Your task to perform on an android device: Open calendar and show me the third week of next month Image 0: 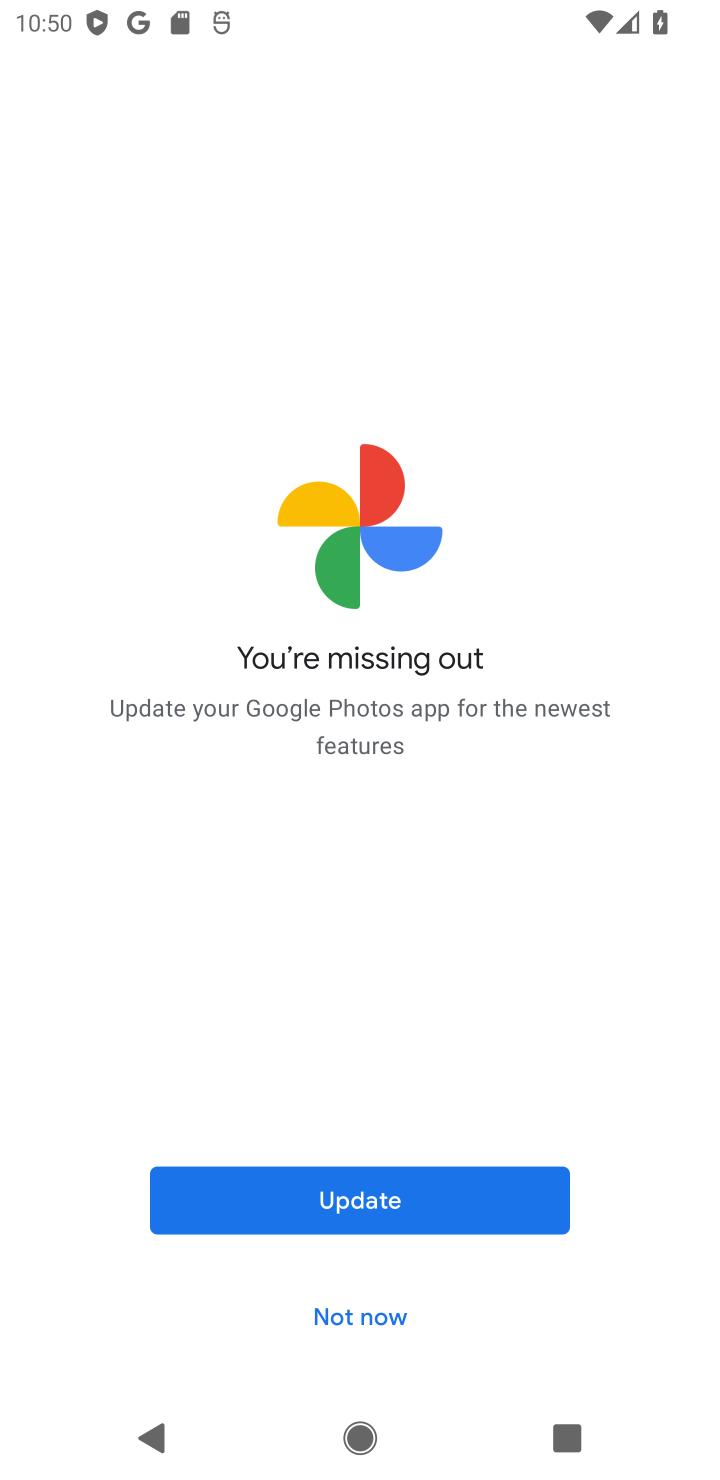
Step 0: press home button
Your task to perform on an android device: Open calendar and show me the third week of next month Image 1: 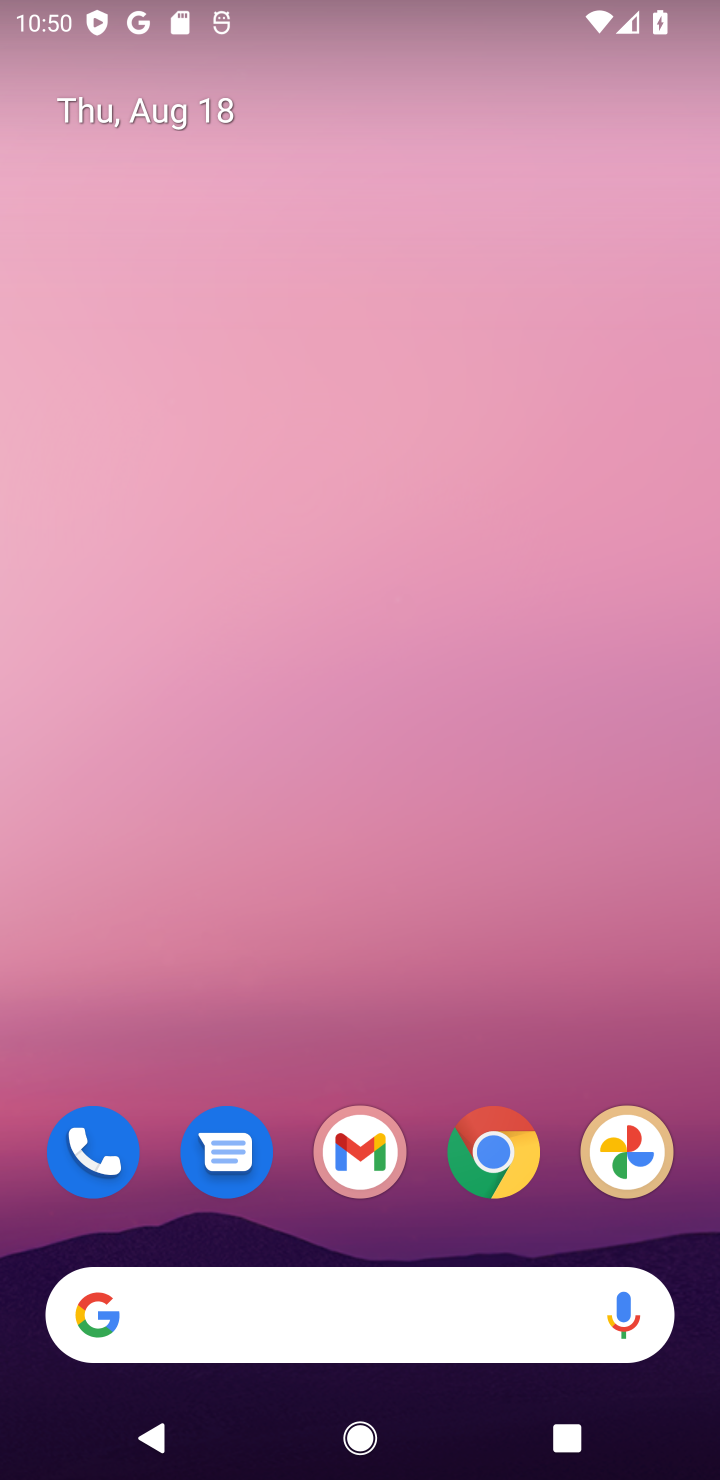
Step 1: drag from (371, 1021) to (499, 28)
Your task to perform on an android device: Open calendar and show me the third week of next month Image 2: 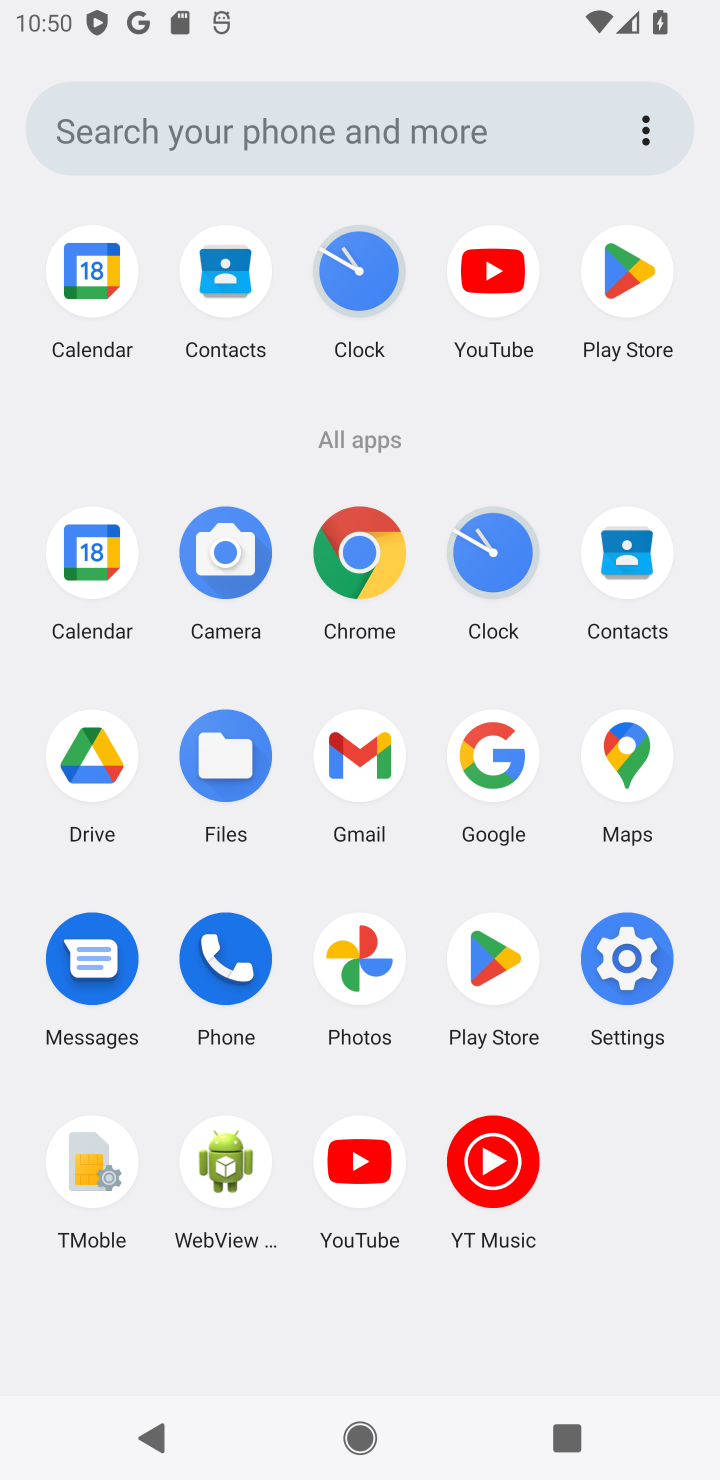
Step 2: click (92, 261)
Your task to perform on an android device: Open calendar and show me the third week of next month Image 3: 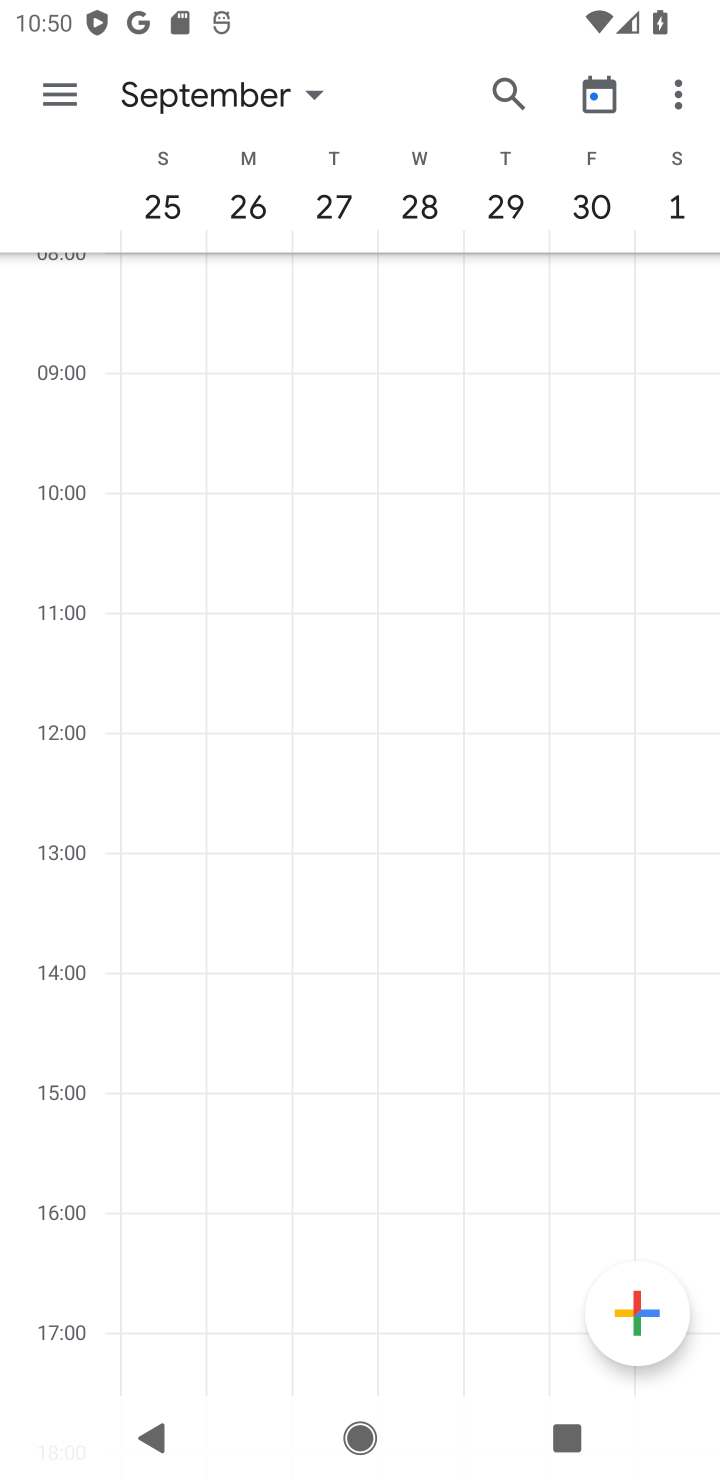
Step 3: click (76, 87)
Your task to perform on an android device: Open calendar and show me the third week of next month Image 4: 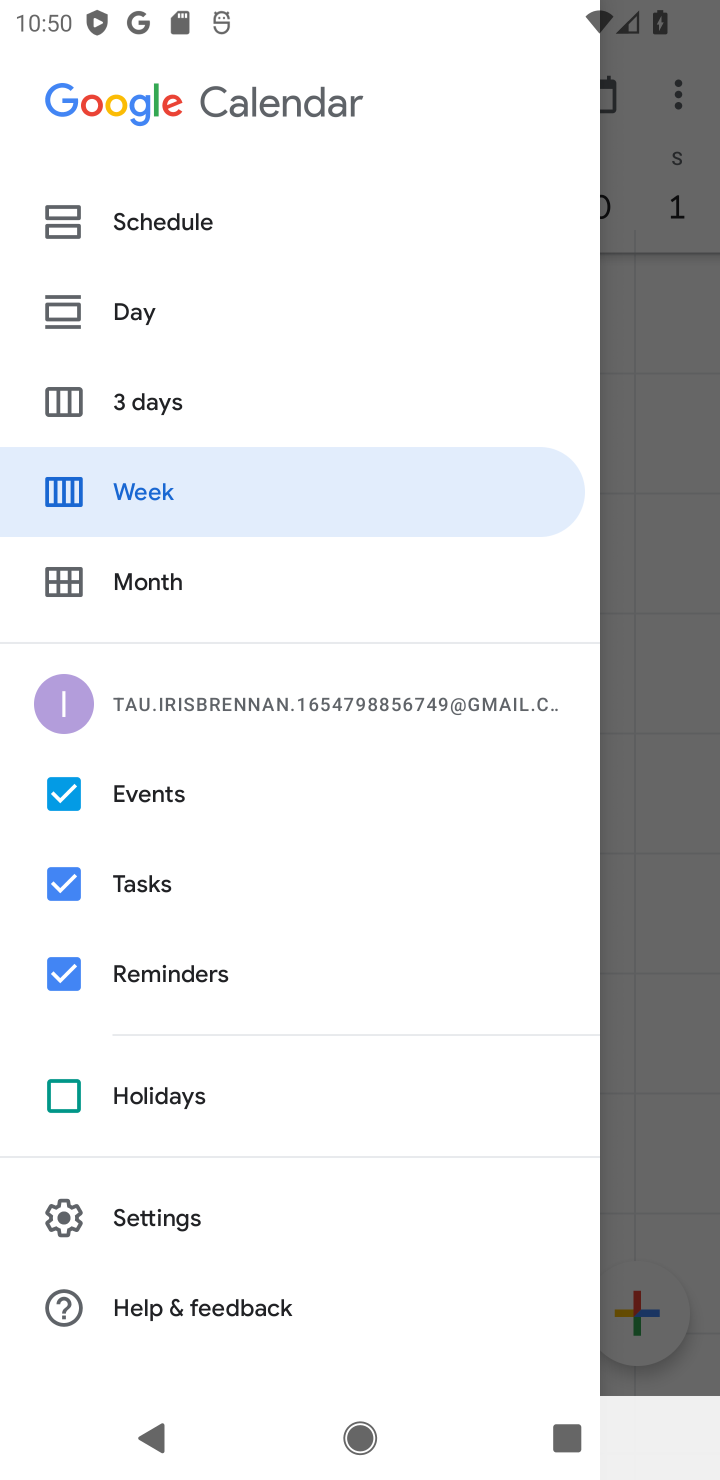
Step 4: click (136, 549)
Your task to perform on an android device: Open calendar and show me the third week of next month Image 5: 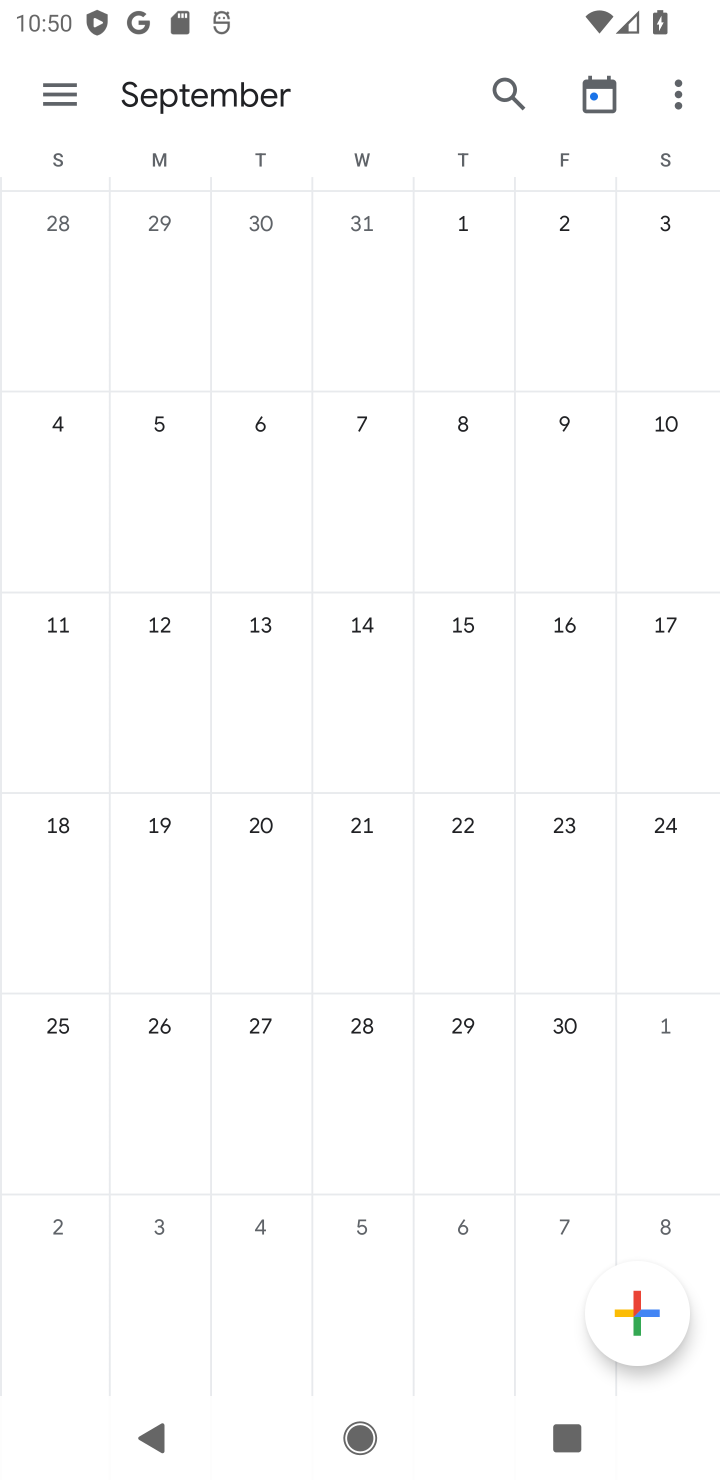
Step 5: click (62, 826)
Your task to perform on an android device: Open calendar and show me the third week of next month Image 6: 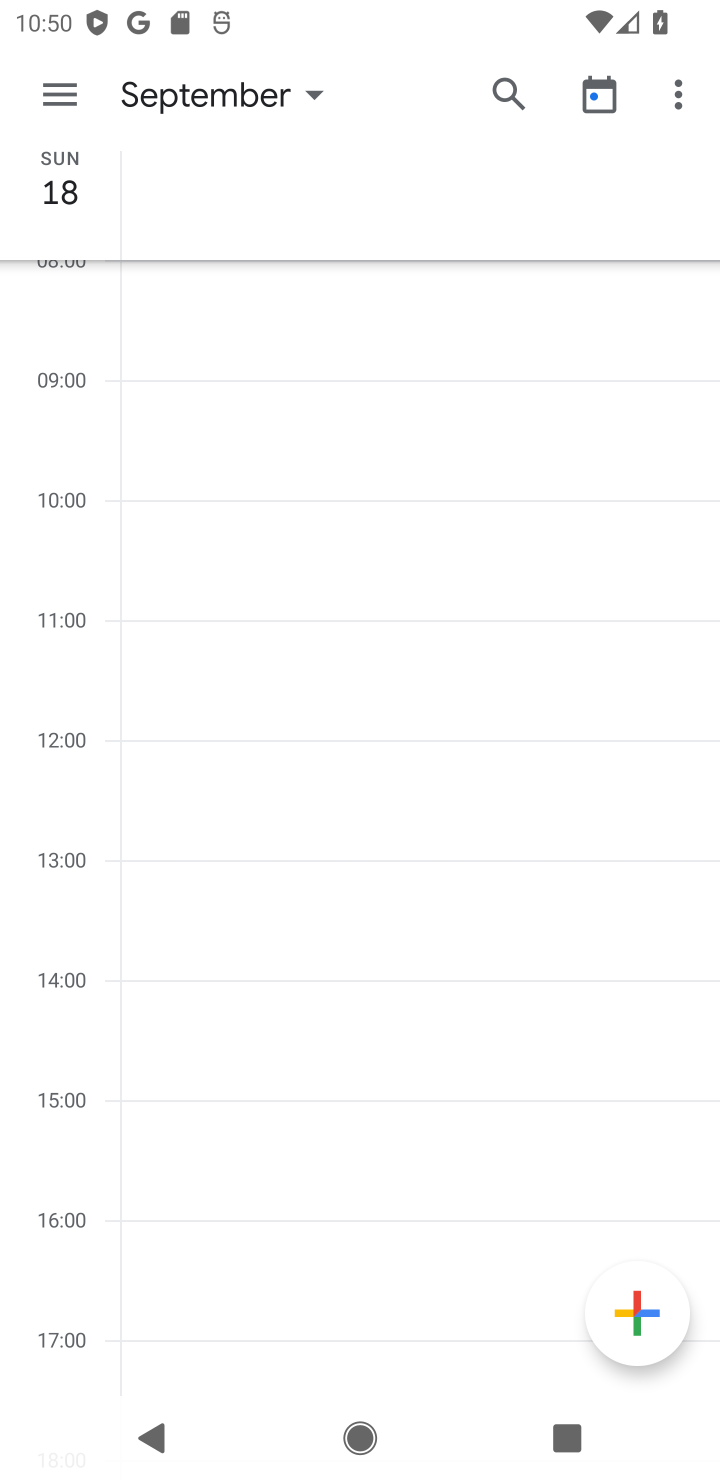
Step 6: click (59, 83)
Your task to perform on an android device: Open calendar and show me the third week of next month Image 7: 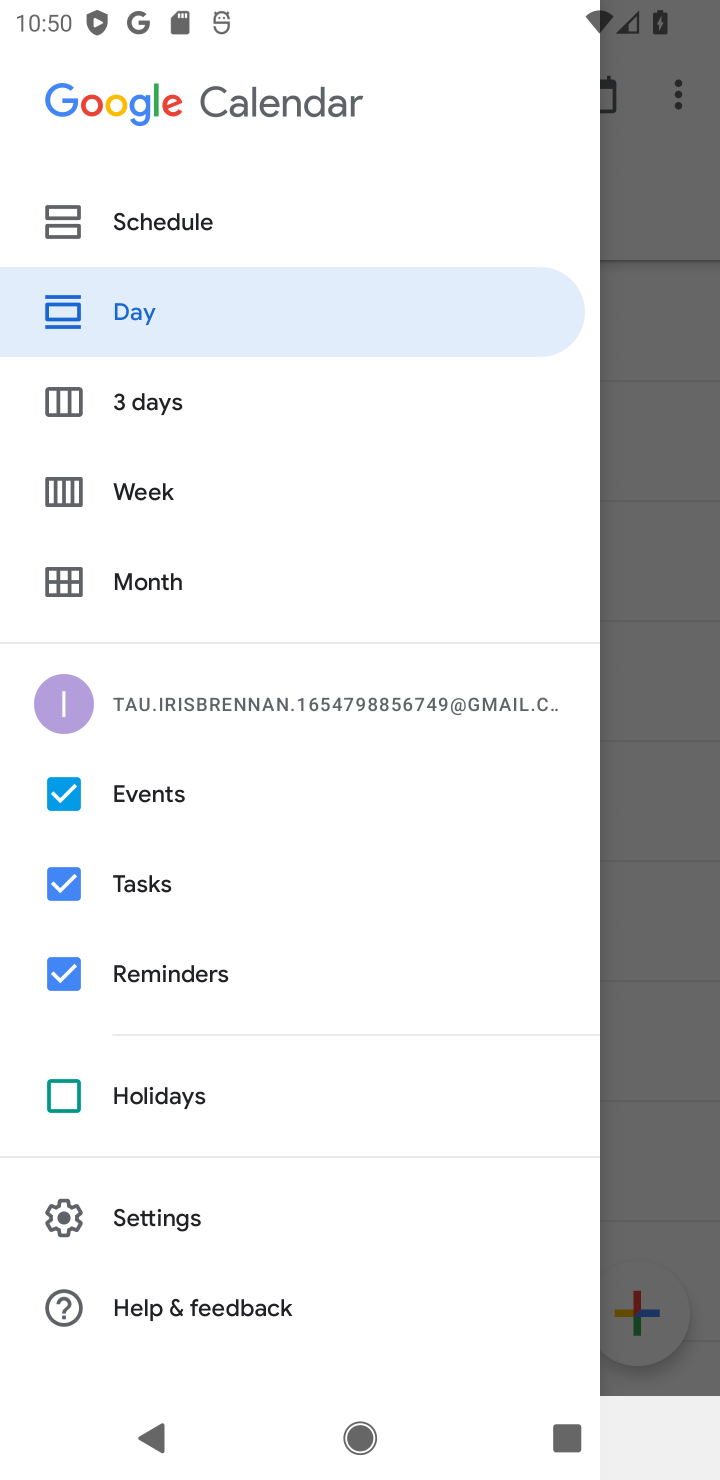
Step 7: click (59, 478)
Your task to perform on an android device: Open calendar and show me the third week of next month Image 8: 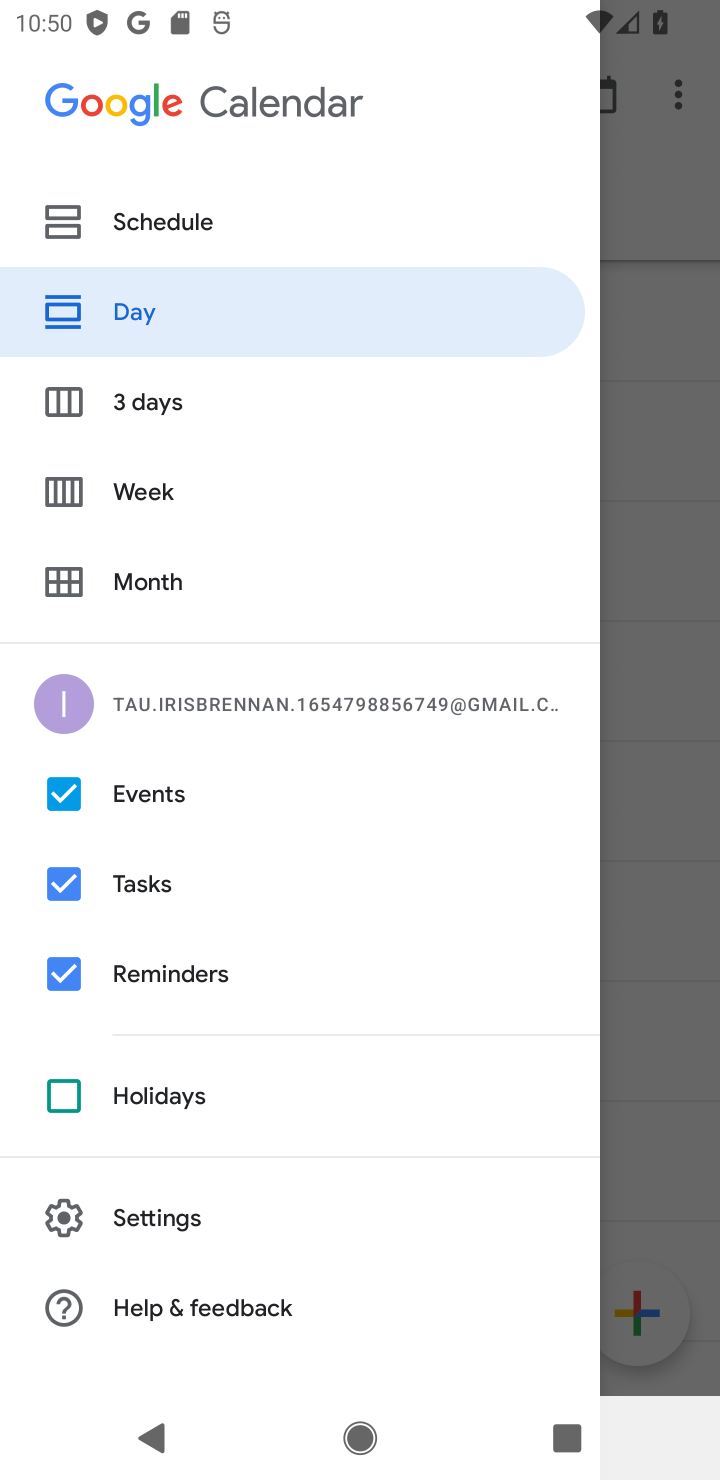
Step 8: click (59, 478)
Your task to perform on an android device: Open calendar and show me the third week of next month Image 9: 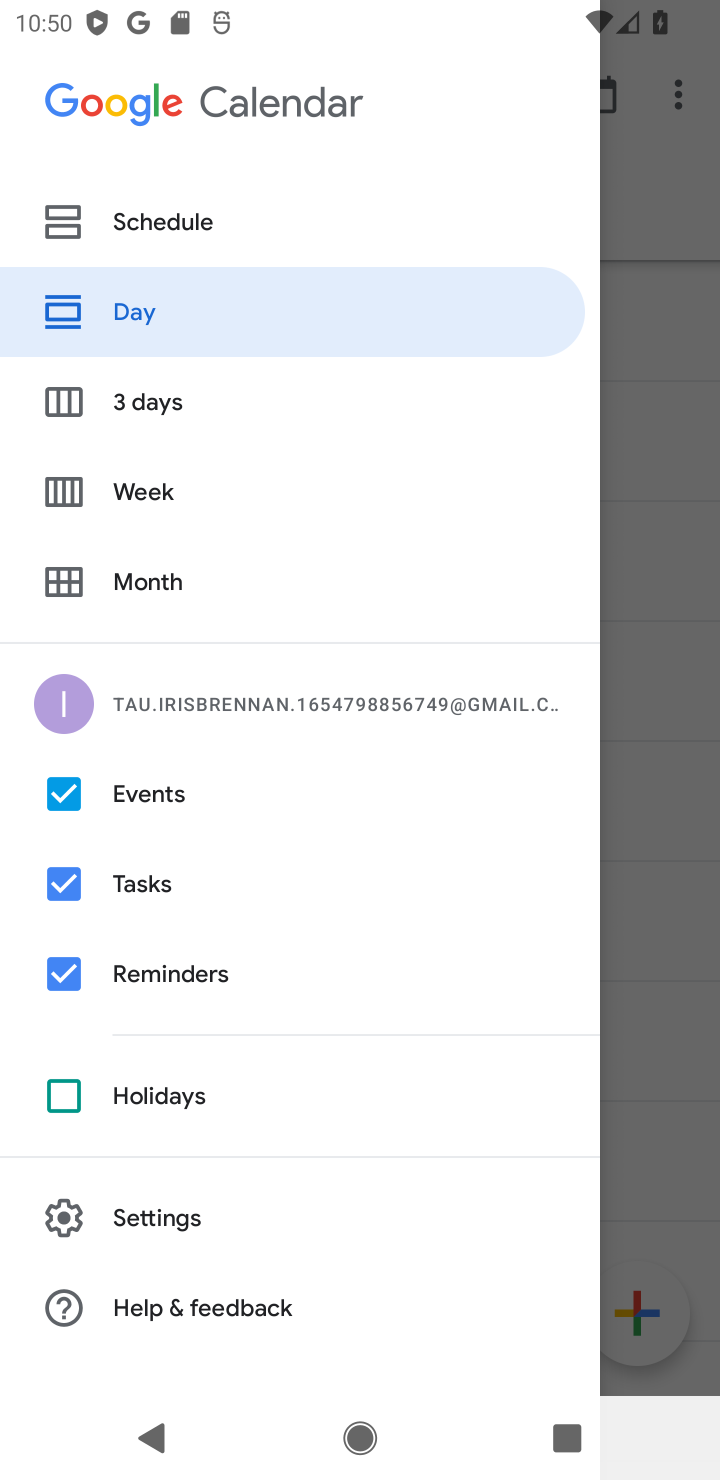
Step 9: click (59, 478)
Your task to perform on an android device: Open calendar and show me the third week of next month Image 10: 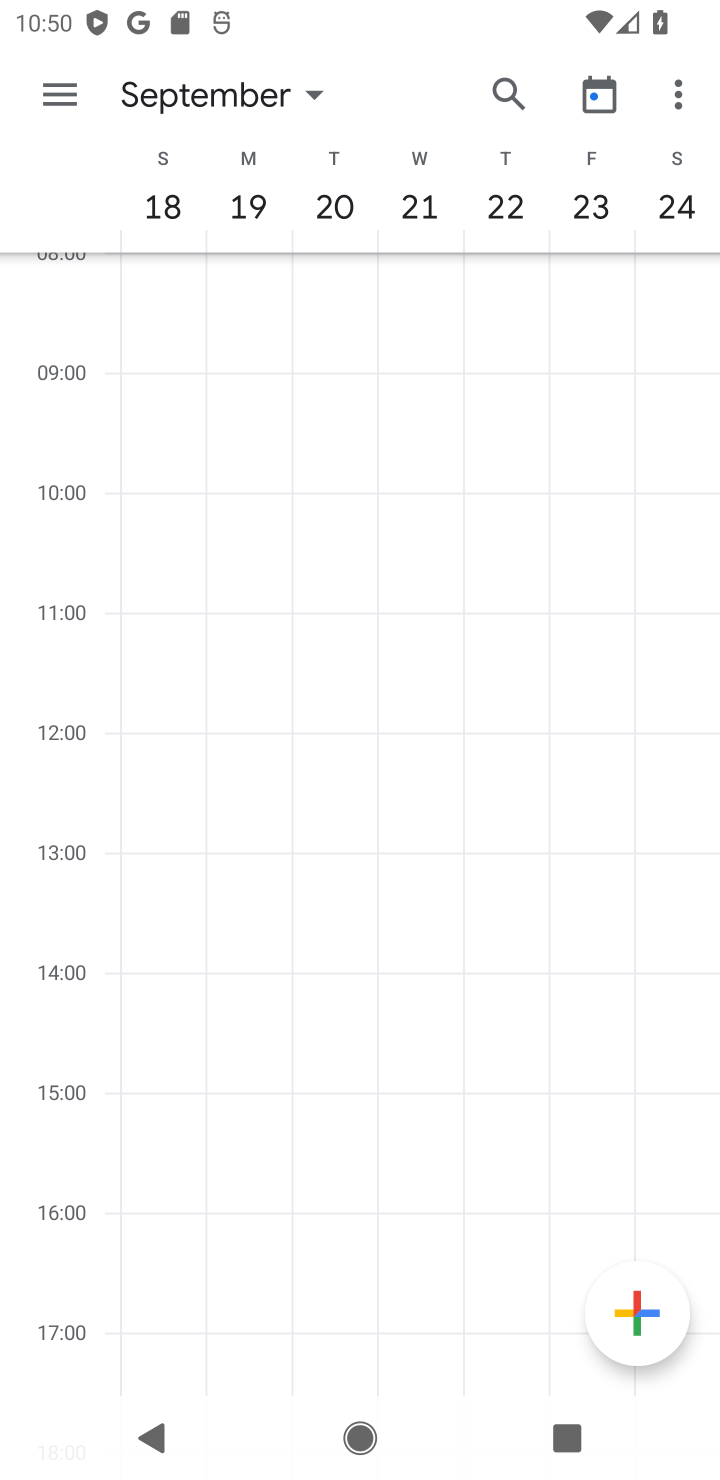
Step 10: task complete